Your task to perform on an android device: Open the map Image 0: 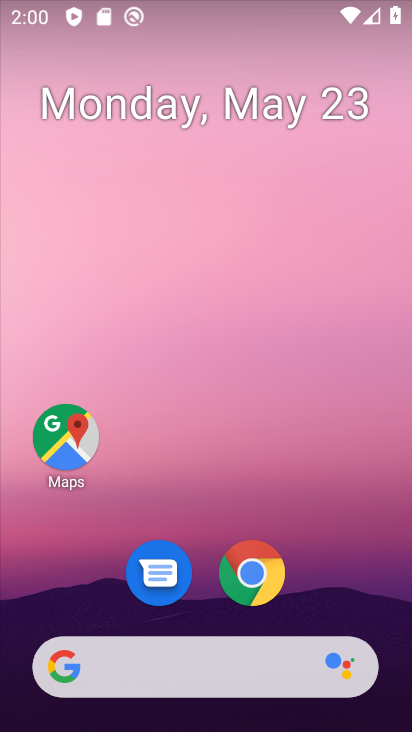
Step 0: drag from (395, 609) to (379, 239)
Your task to perform on an android device: Open the map Image 1: 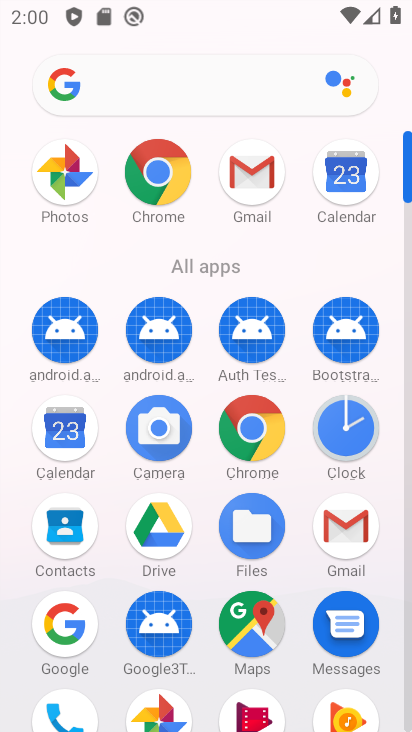
Step 1: drag from (389, 591) to (386, 311)
Your task to perform on an android device: Open the map Image 2: 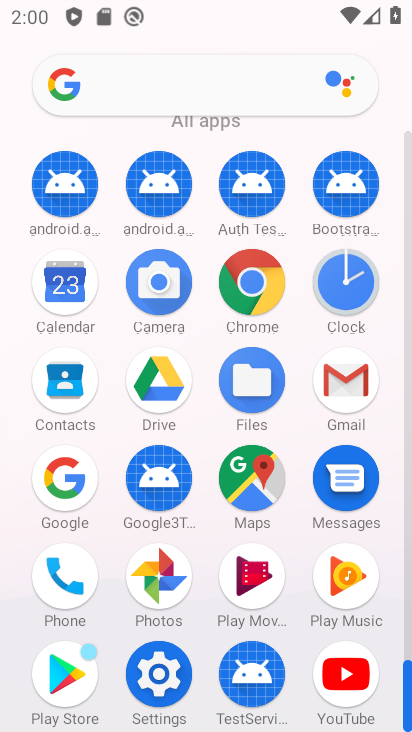
Step 2: click (247, 498)
Your task to perform on an android device: Open the map Image 3: 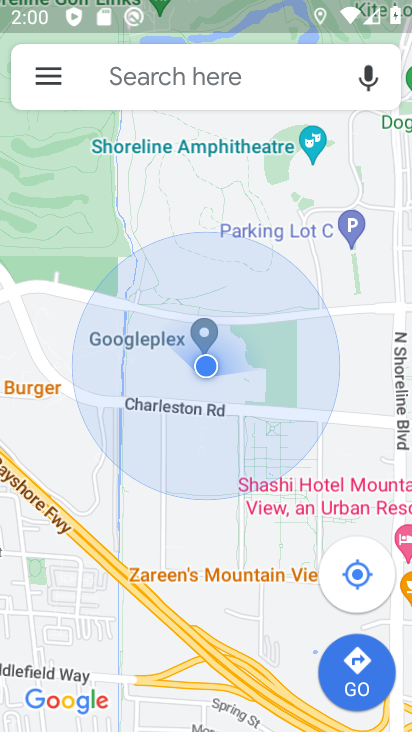
Step 3: task complete